Your task to perform on an android device: change keyboard looks Image 0: 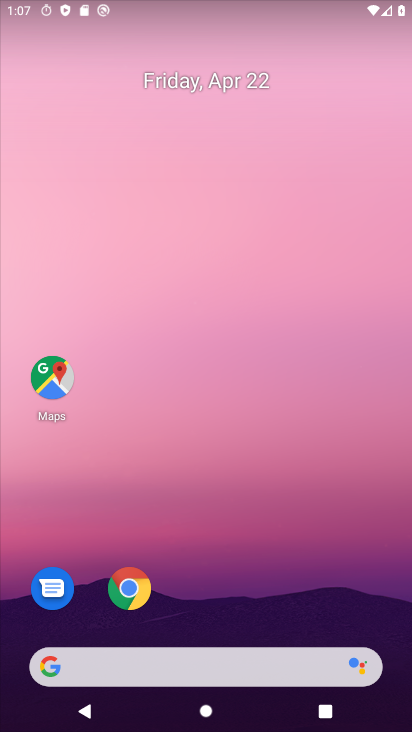
Step 0: drag from (356, 591) to (376, 122)
Your task to perform on an android device: change keyboard looks Image 1: 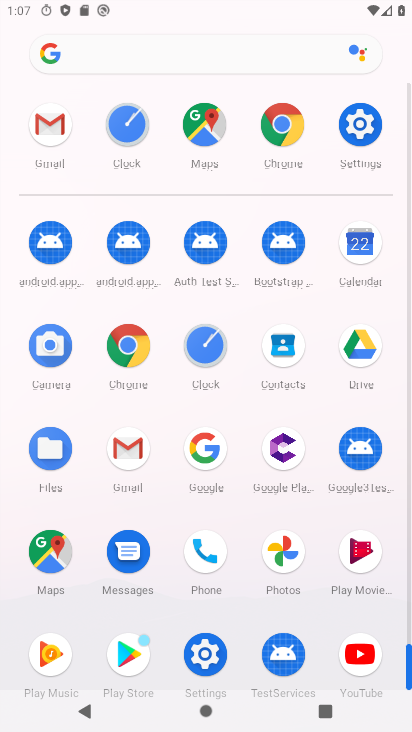
Step 1: click (377, 122)
Your task to perform on an android device: change keyboard looks Image 2: 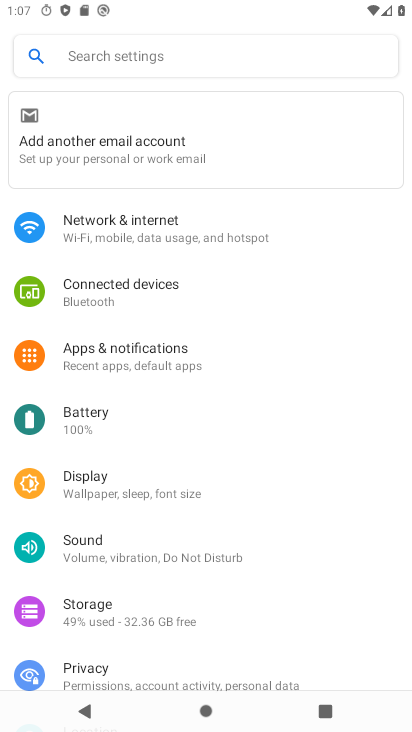
Step 2: drag from (252, 518) to (250, 264)
Your task to perform on an android device: change keyboard looks Image 3: 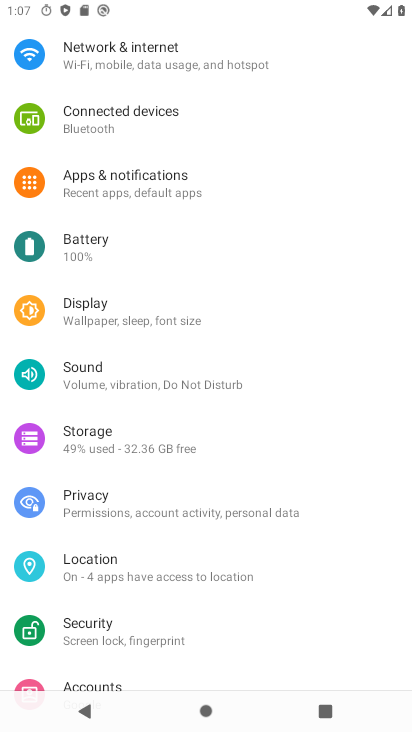
Step 3: drag from (271, 633) to (285, 329)
Your task to perform on an android device: change keyboard looks Image 4: 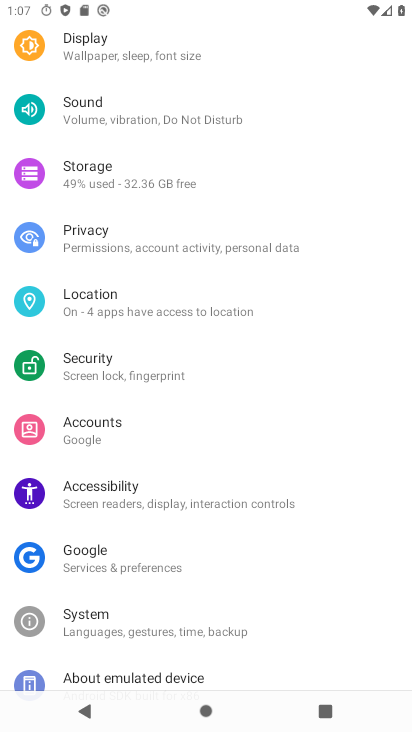
Step 4: drag from (317, 595) to (325, 226)
Your task to perform on an android device: change keyboard looks Image 5: 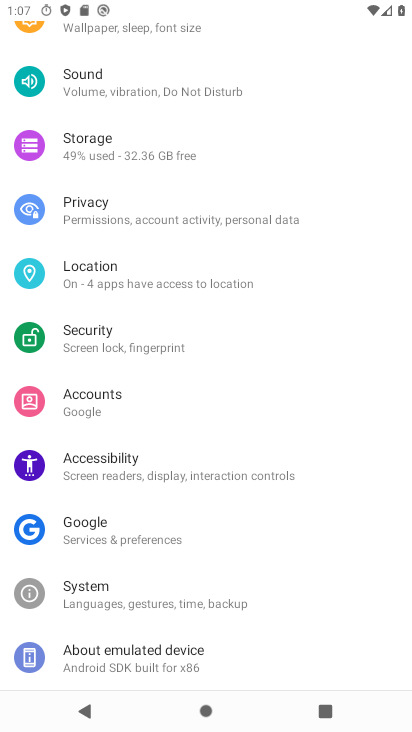
Step 5: click (83, 602)
Your task to perform on an android device: change keyboard looks Image 6: 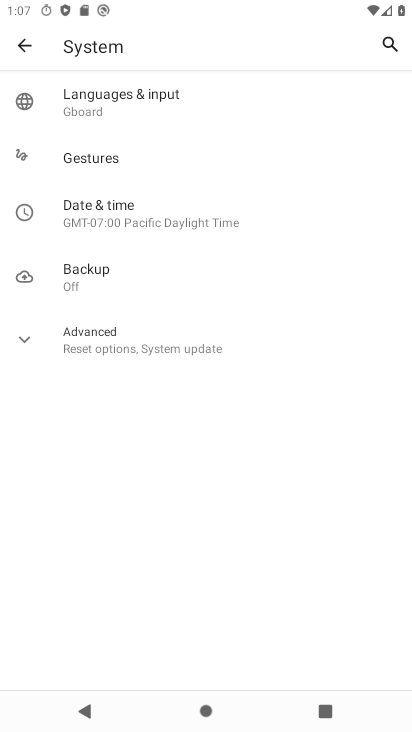
Step 6: click (124, 101)
Your task to perform on an android device: change keyboard looks Image 7: 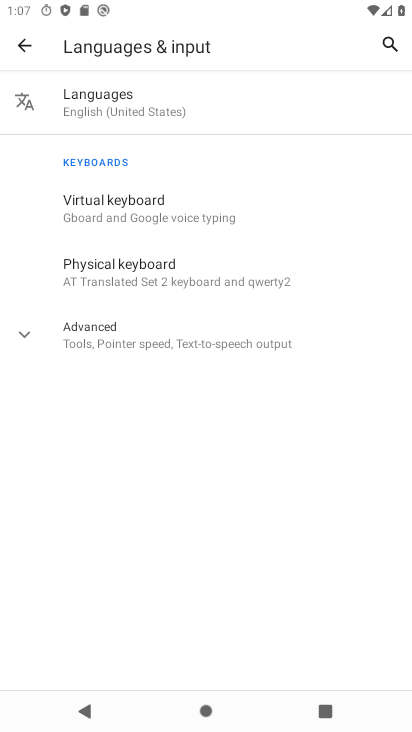
Step 7: click (116, 200)
Your task to perform on an android device: change keyboard looks Image 8: 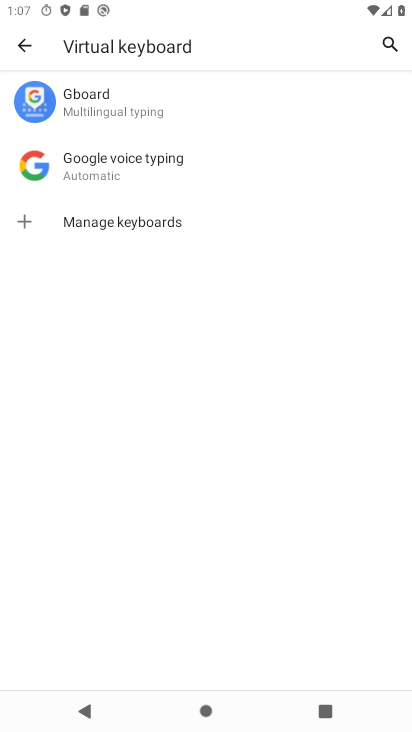
Step 8: click (101, 104)
Your task to perform on an android device: change keyboard looks Image 9: 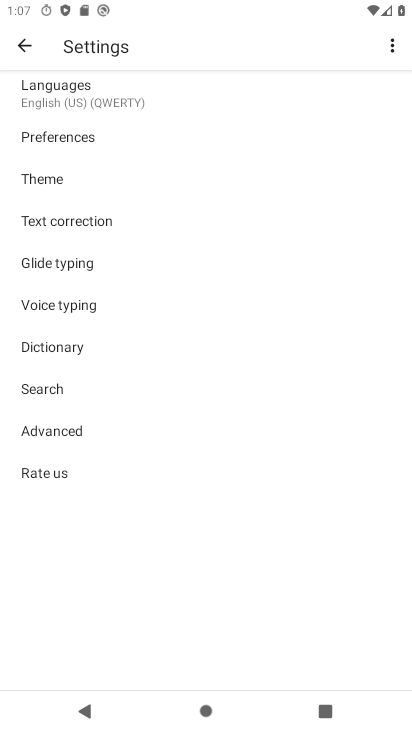
Step 9: click (55, 176)
Your task to perform on an android device: change keyboard looks Image 10: 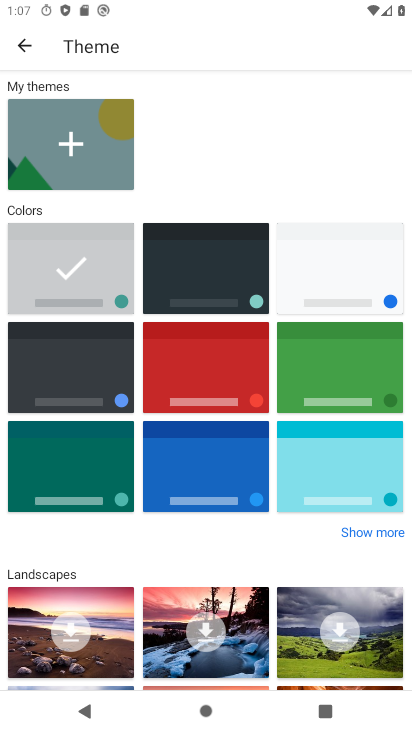
Step 10: click (207, 276)
Your task to perform on an android device: change keyboard looks Image 11: 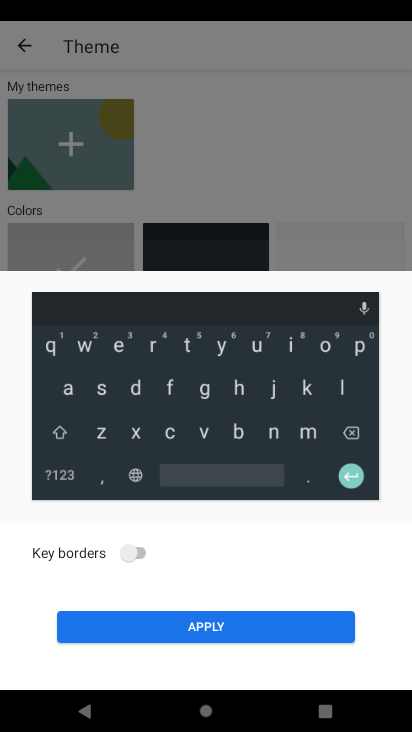
Step 11: click (243, 617)
Your task to perform on an android device: change keyboard looks Image 12: 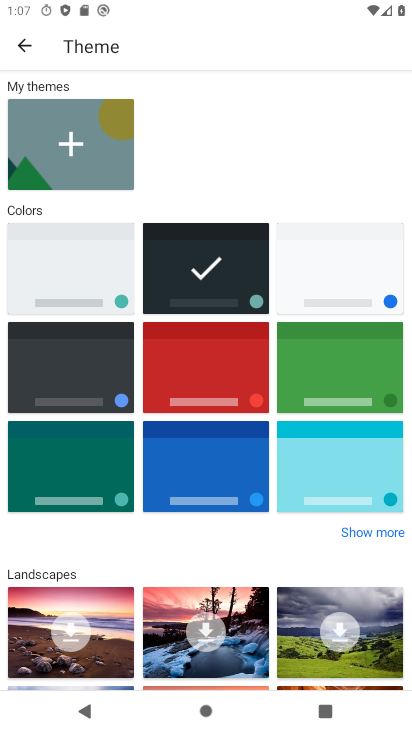
Step 12: task complete